Your task to perform on an android device: Do I have any events tomorrow? Image 0: 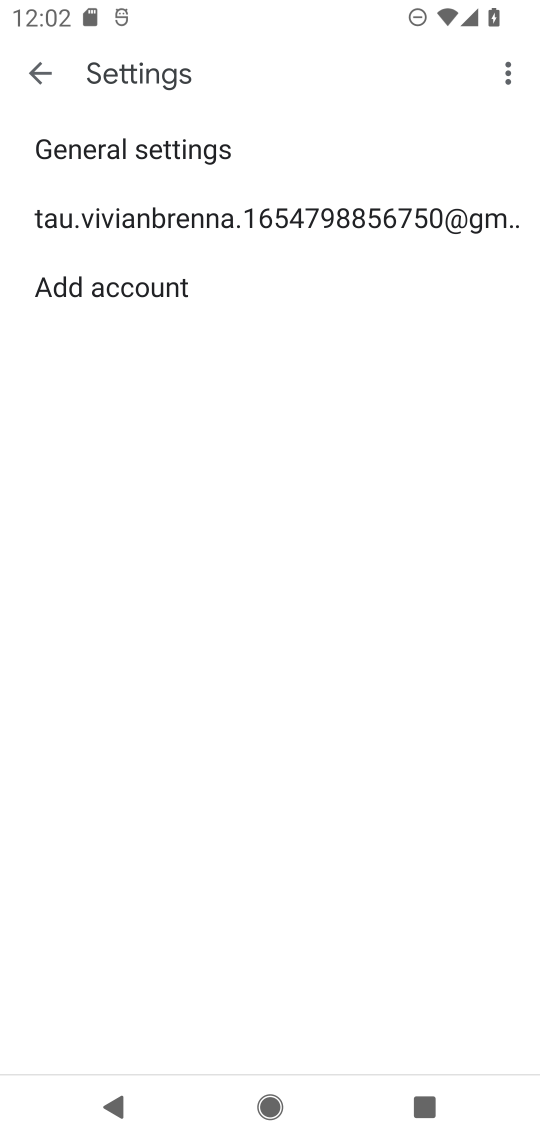
Step 0: press home button
Your task to perform on an android device: Do I have any events tomorrow? Image 1: 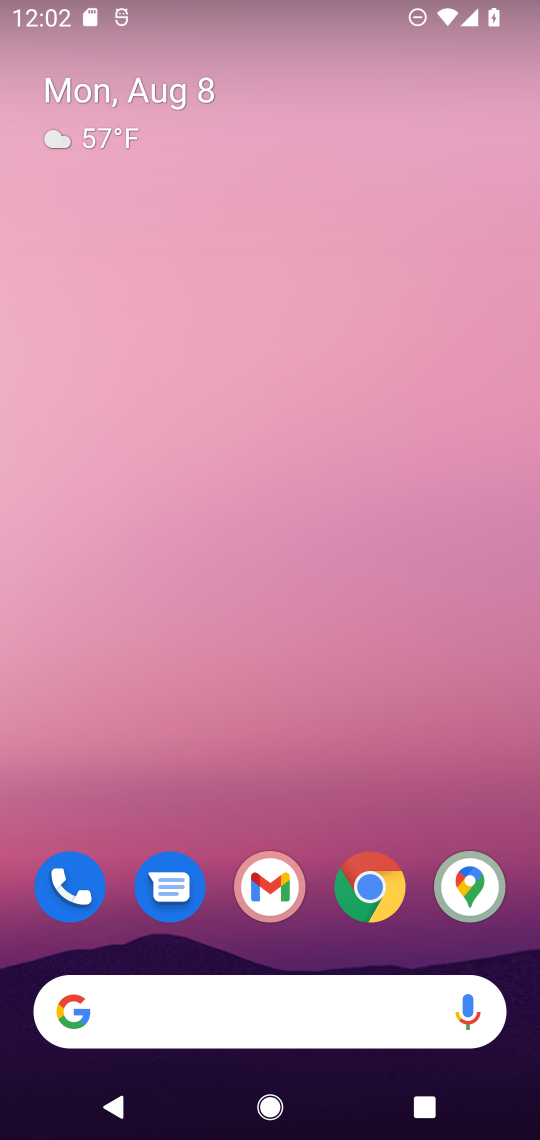
Step 1: drag from (278, 787) to (277, 47)
Your task to perform on an android device: Do I have any events tomorrow? Image 2: 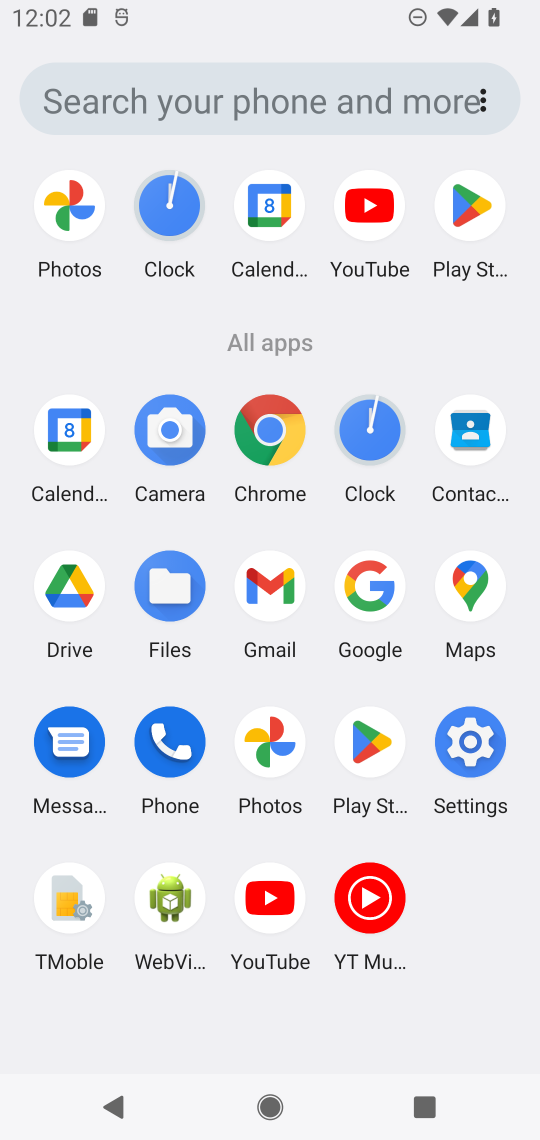
Step 2: click (75, 431)
Your task to perform on an android device: Do I have any events tomorrow? Image 3: 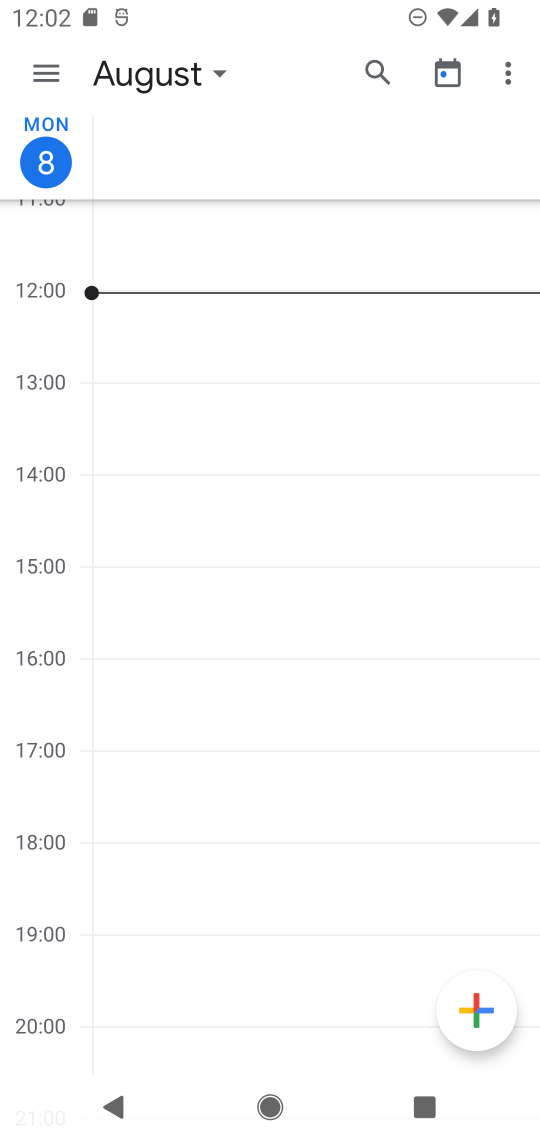
Step 3: click (211, 66)
Your task to perform on an android device: Do I have any events tomorrow? Image 4: 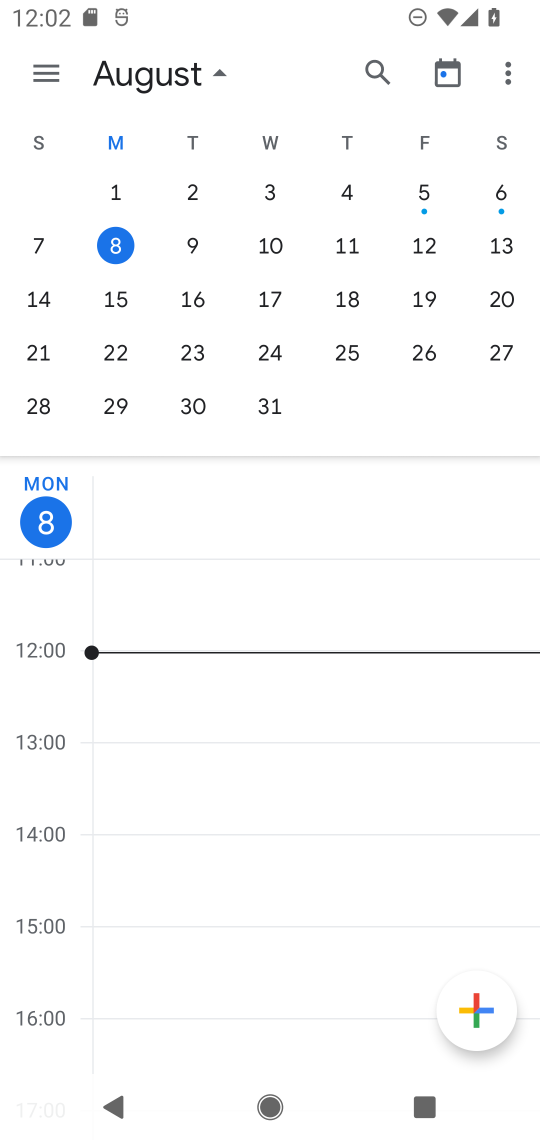
Step 4: click (192, 240)
Your task to perform on an android device: Do I have any events tomorrow? Image 5: 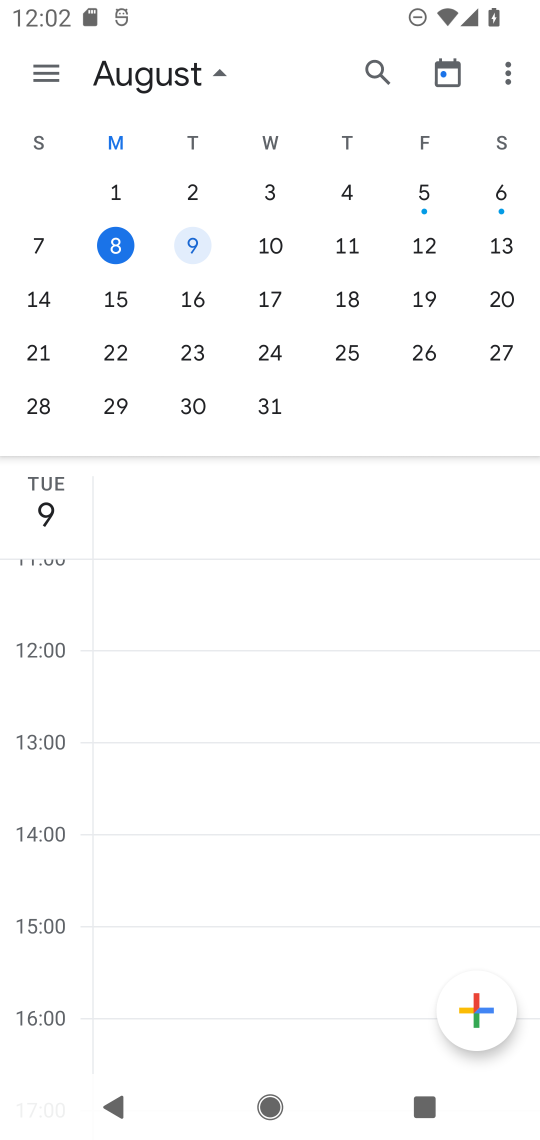
Step 5: click (192, 240)
Your task to perform on an android device: Do I have any events tomorrow? Image 6: 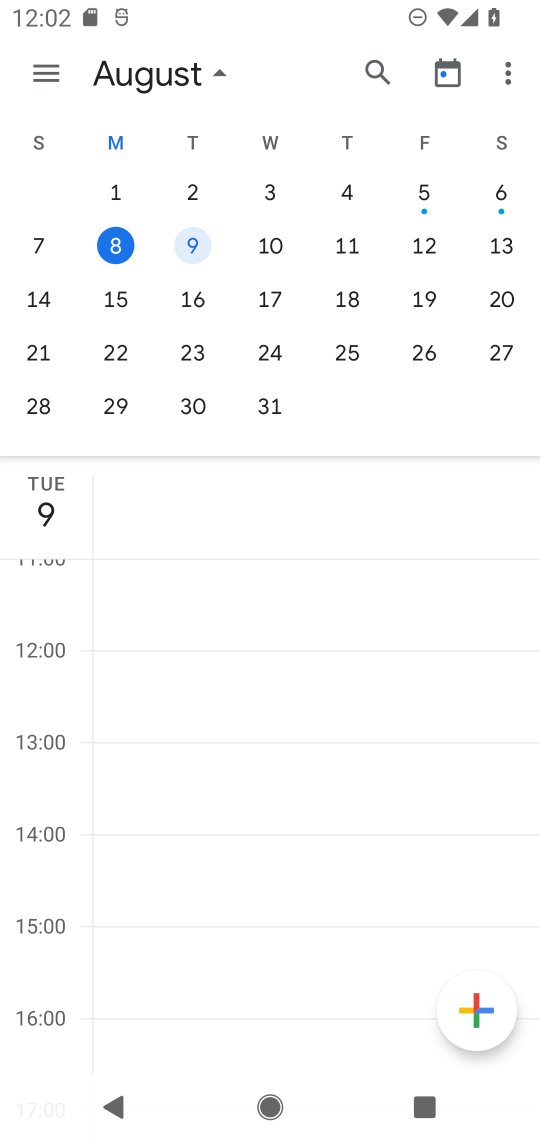
Step 6: task complete